Your task to perform on an android device: Open the map Image 0: 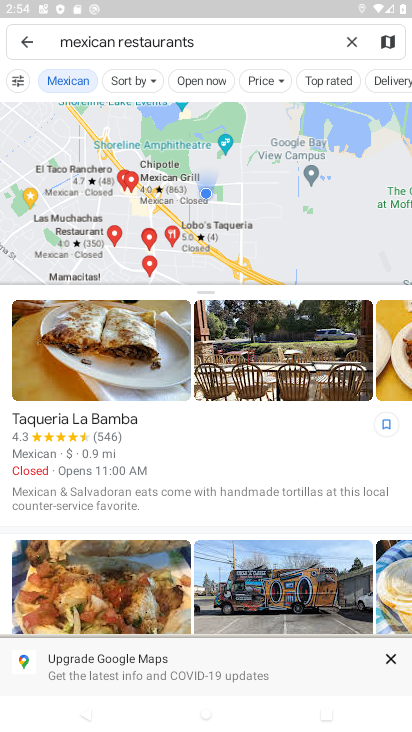
Step 0: press home button
Your task to perform on an android device: Open the map Image 1: 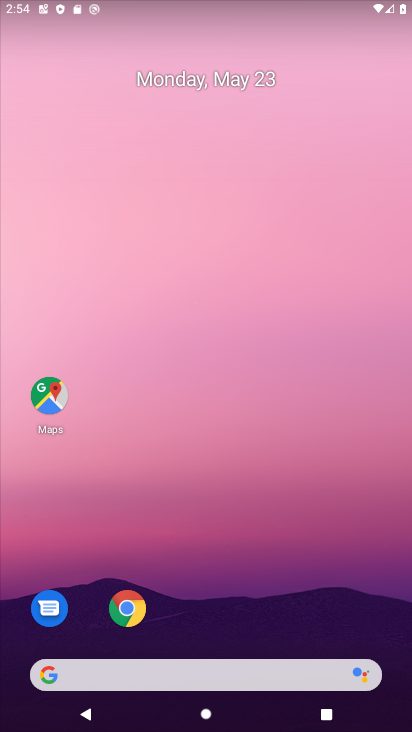
Step 1: click (42, 398)
Your task to perform on an android device: Open the map Image 2: 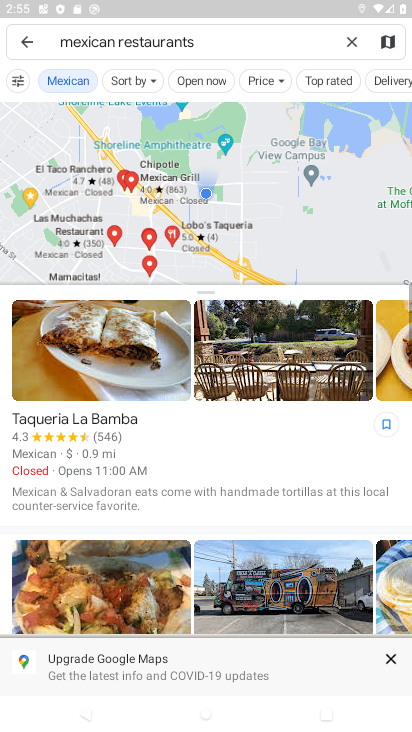
Step 2: click (352, 42)
Your task to perform on an android device: Open the map Image 3: 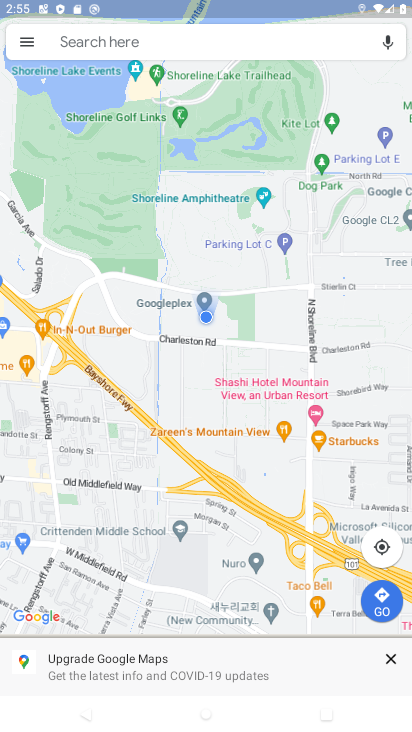
Step 3: task complete